Your task to perform on an android device: Look up the best selling books on Goodreads. Image 0: 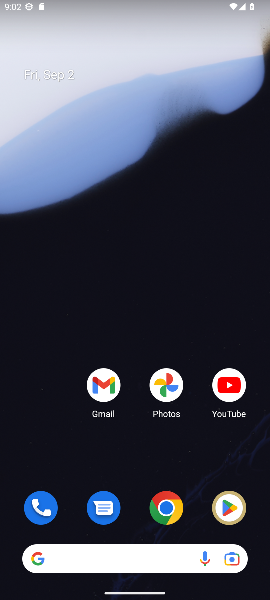
Step 0: drag from (131, 465) to (191, 38)
Your task to perform on an android device: Look up the best selling books on Goodreads. Image 1: 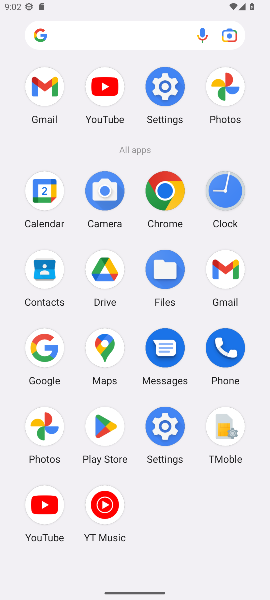
Step 1: click (159, 188)
Your task to perform on an android device: Look up the best selling books on Goodreads. Image 2: 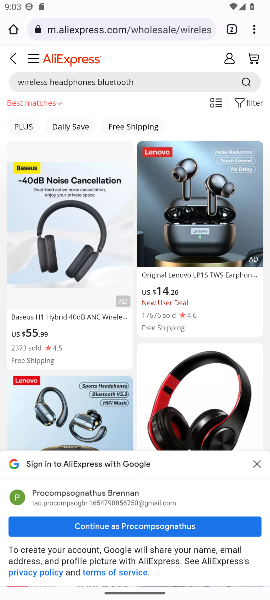
Step 2: click (117, 26)
Your task to perform on an android device: Look up the best selling books on Goodreads. Image 3: 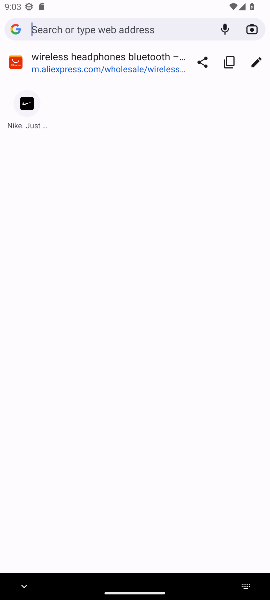
Step 3: type "Goodreads"
Your task to perform on an android device: Look up the best selling books on Goodreads. Image 4: 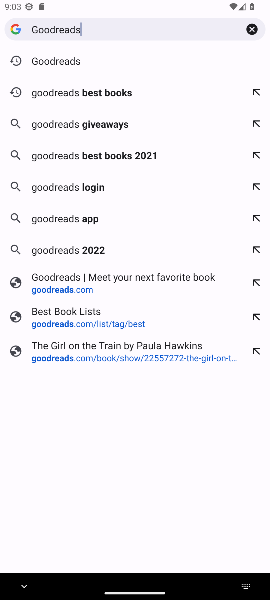
Step 4: click (55, 59)
Your task to perform on an android device: Look up the best selling books on Goodreads. Image 5: 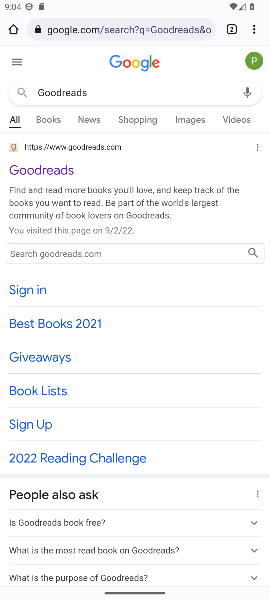
Step 5: click (40, 167)
Your task to perform on an android device: Look up the best selling books on Goodreads. Image 6: 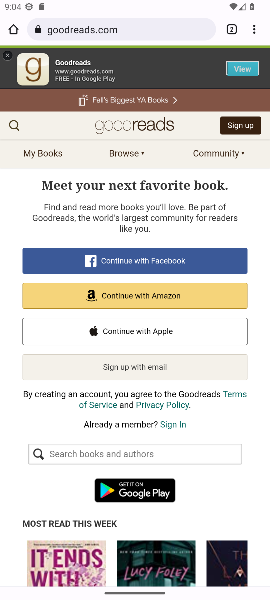
Step 6: task complete